Your task to perform on an android device: Show me productivity apps on the Play Store Image 0: 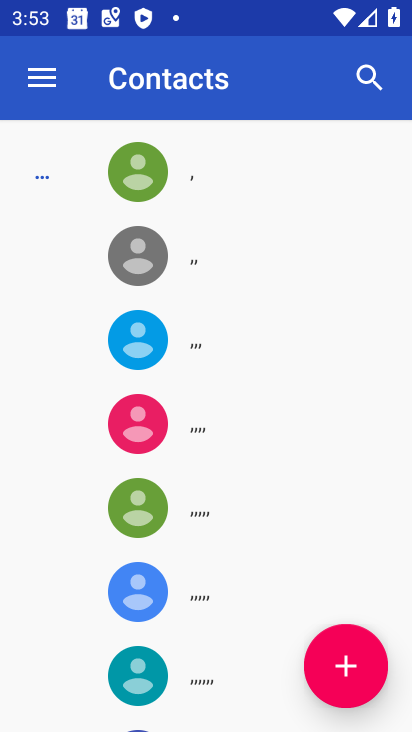
Step 0: press back button
Your task to perform on an android device: Show me productivity apps on the Play Store Image 1: 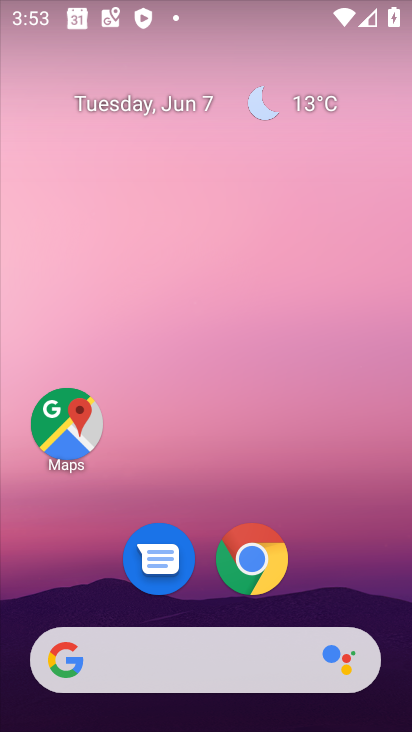
Step 1: drag from (343, 592) to (206, 111)
Your task to perform on an android device: Show me productivity apps on the Play Store Image 2: 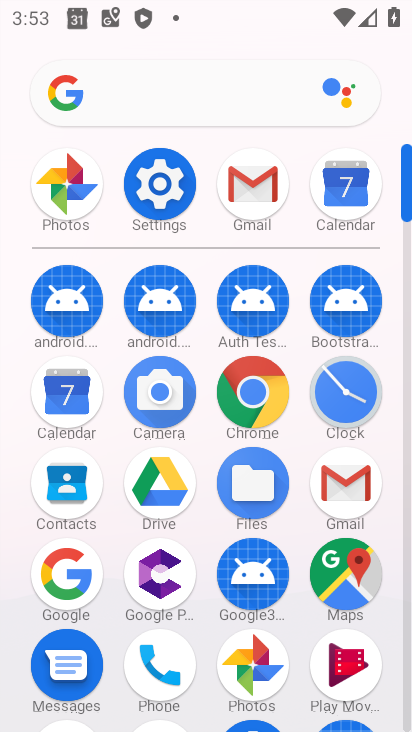
Step 2: drag from (199, 264) to (203, 109)
Your task to perform on an android device: Show me productivity apps on the Play Store Image 3: 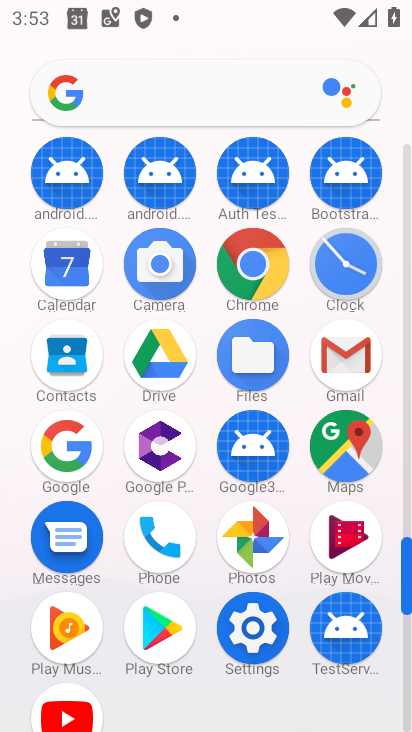
Step 3: click (164, 626)
Your task to perform on an android device: Show me productivity apps on the Play Store Image 4: 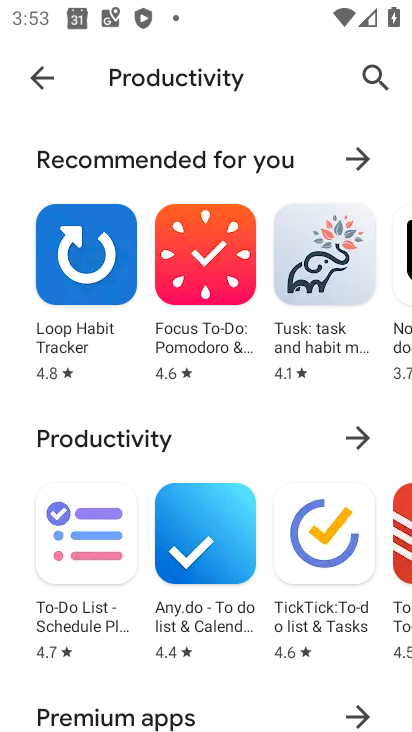
Step 4: task complete